Your task to perform on an android device: turn smart compose on in the gmail app Image 0: 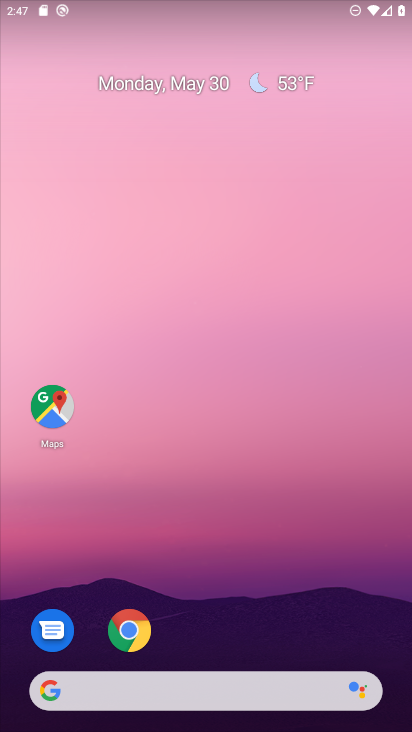
Step 0: drag from (201, 679) to (194, 257)
Your task to perform on an android device: turn smart compose on in the gmail app Image 1: 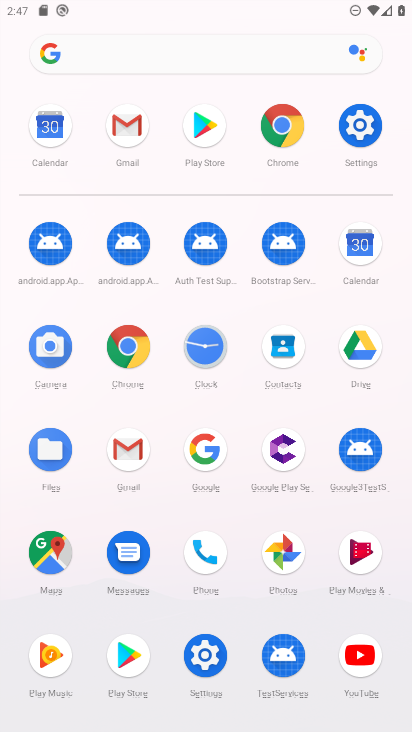
Step 1: click (133, 449)
Your task to perform on an android device: turn smart compose on in the gmail app Image 2: 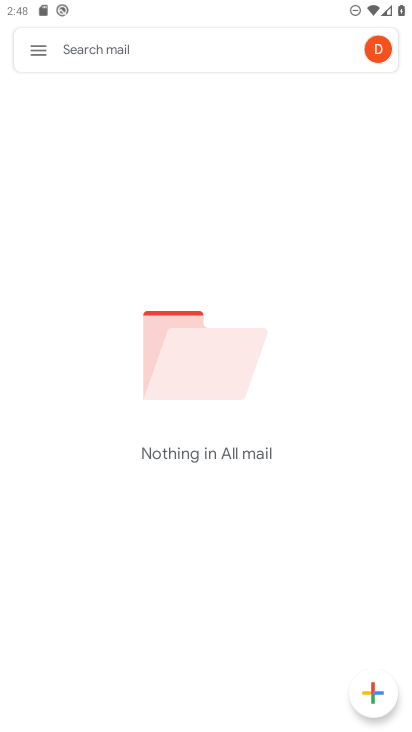
Step 2: click (36, 52)
Your task to perform on an android device: turn smart compose on in the gmail app Image 3: 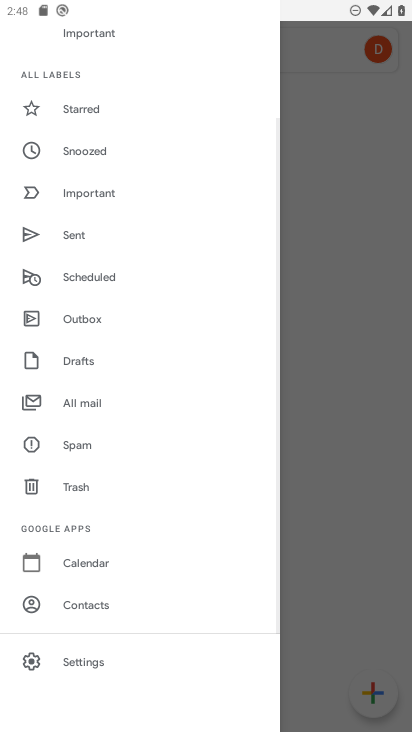
Step 3: click (113, 653)
Your task to perform on an android device: turn smart compose on in the gmail app Image 4: 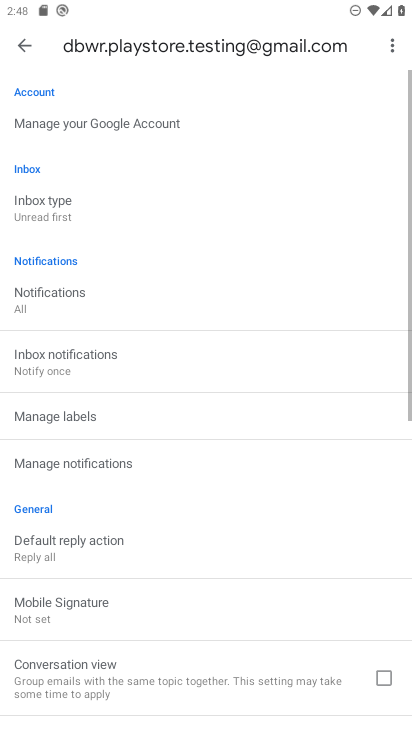
Step 4: task complete